Your task to perform on an android device: Open Youtube and go to the subscriptions tab Image 0: 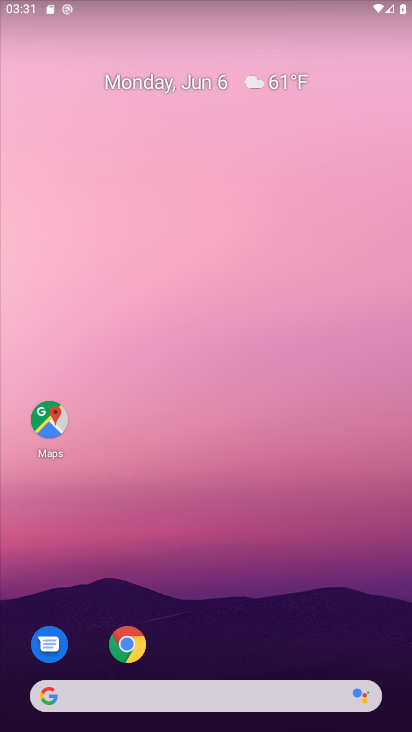
Step 0: drag from (222, 655) to (272, 30)
Your task to perform on an android device: Open Youtube and go to the subscriptions tab Image 1: 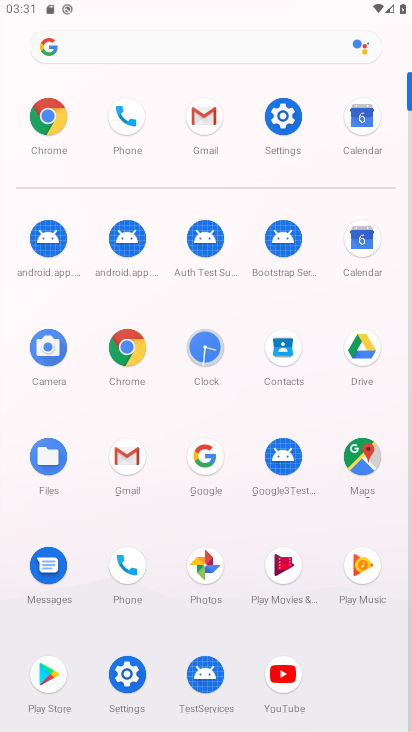
Step 1: click (288, 679)
Your task to perform on an android device: Open Youtube and go to the subscriptions tab Image 2: 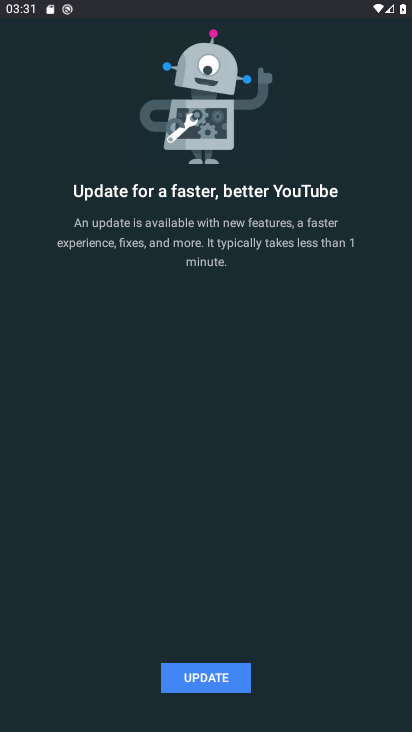
Step 2: drag from (211, 680) to (117, 680)
Your task to perform on an android device: Open Youtube and go to the subscriptions tab Image 3: 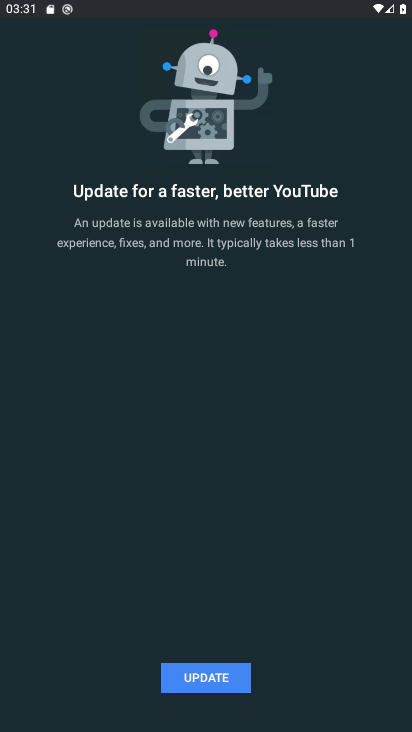
Step 3: click (234, 681)
Your task to perform on an android device: Open Youtube and go to the subscriptions tab Image 4: 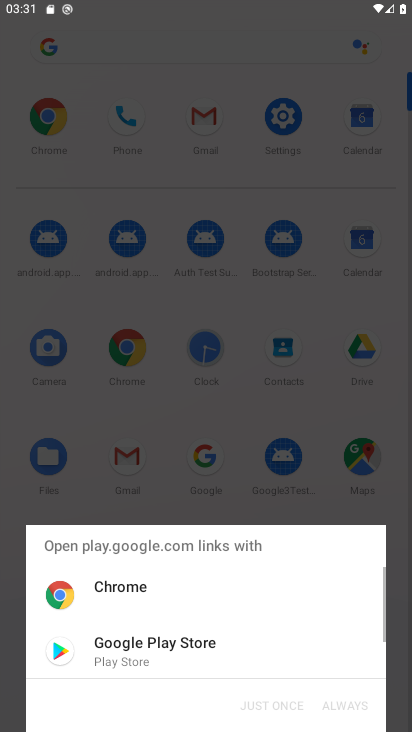
Step 4: click (163, 647)
Your task to perform on an android device: Open Youtube and go to the subscriptions tab Image 5: 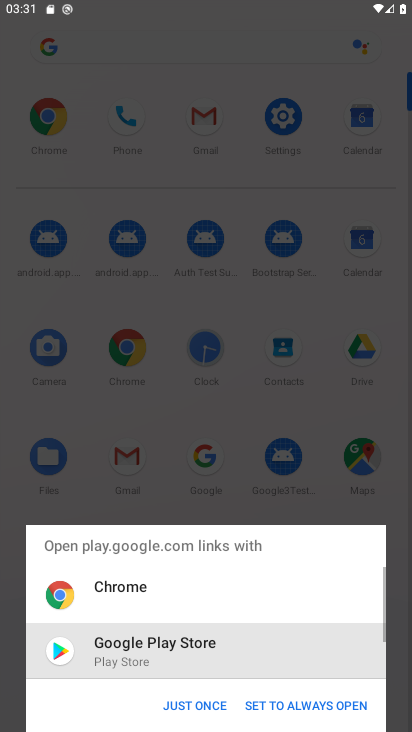
Step 5: click (201, 703)
Your task to perform on an android device: Open Youtube and go to the subscriptions tab Image 6: 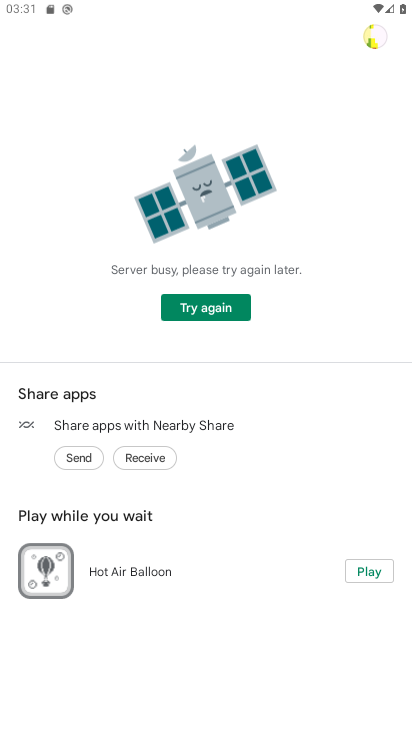
Step 6: click (226, 303)
Your task to perform on an android device: Open Youtube and go to the subscriptions tab Image 7: 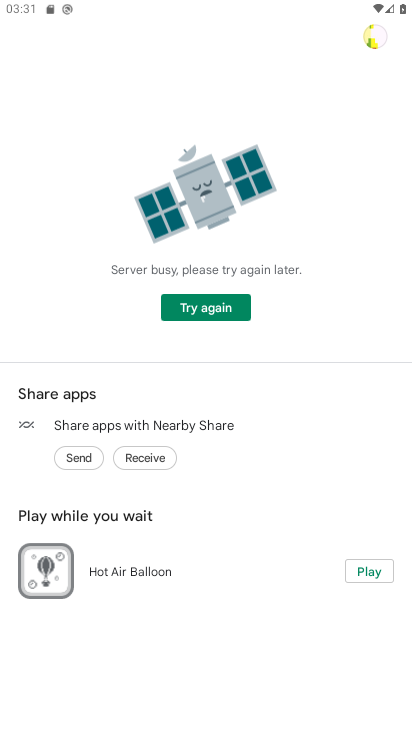
Step 7: click (217, 322)
Your task to perform on an android device: Open Youtube and go to the subscriptions tab Image 8: 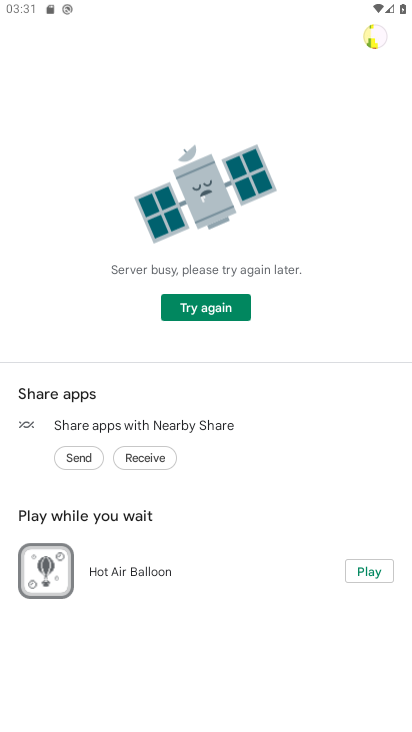
Step 8: click (216, 319)
Your task to perform on an android device: Open Youtube and go to the subscriptions tab Image 9: 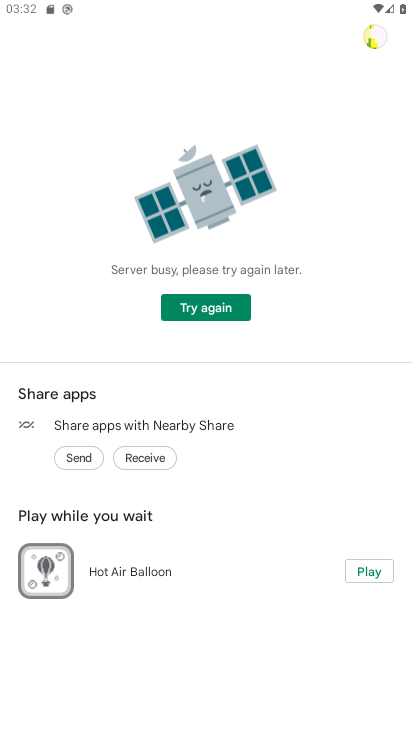
Step 9: task complete